Your task to perform on an android device: turn off data saver in the chrome app Image 0: 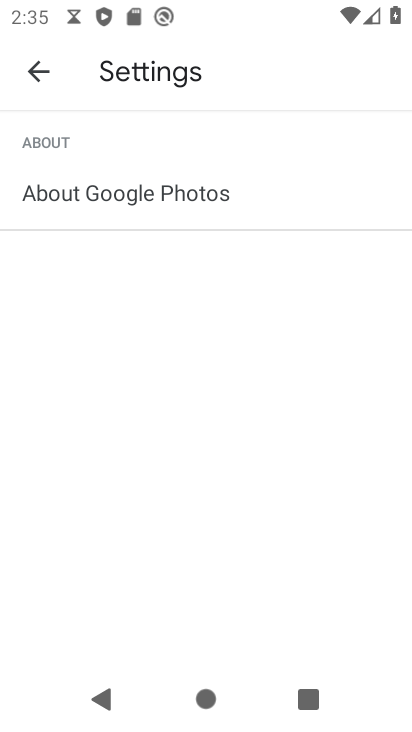
Step 0: press home button
Your task to perform on an android device: turn off data saver in the chrome app Image 1: 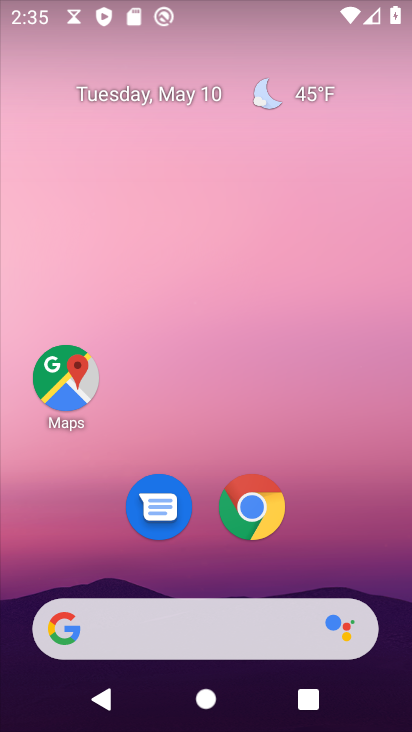
Step 1: drag from (327, 535) to (183, 122)
Your task to perform on an android device: turn off data saver in the chrome app Image 2: 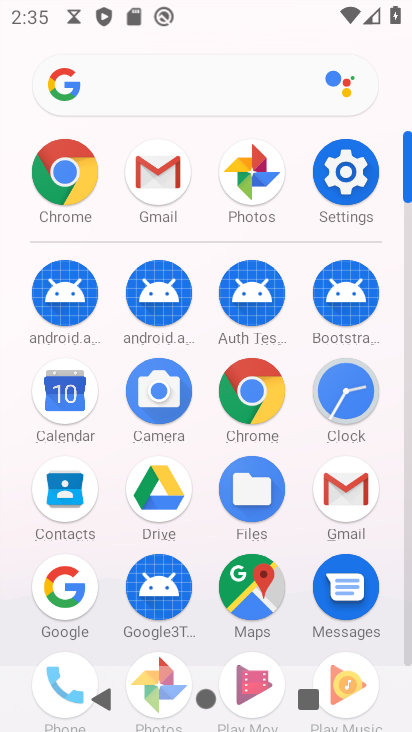
Step 2: click (246, 402)
Your task to perform on an android device: turn off data saver in the chrome app Image 3: 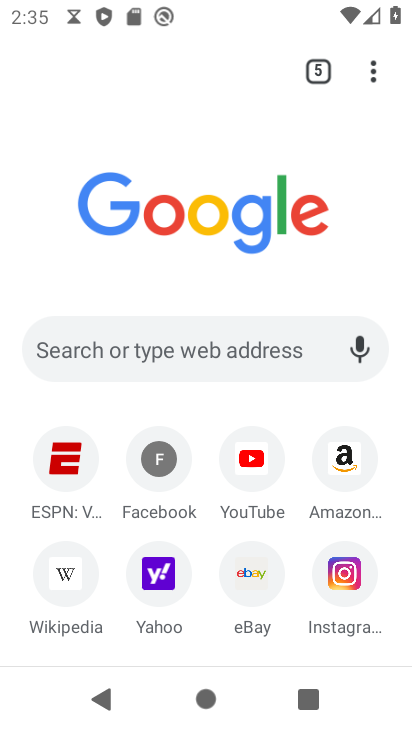
Step 3: drag from (373, 74) to (163, 508)
Your task to perform on an android device: turn off data saver in the chrome app Image 4: 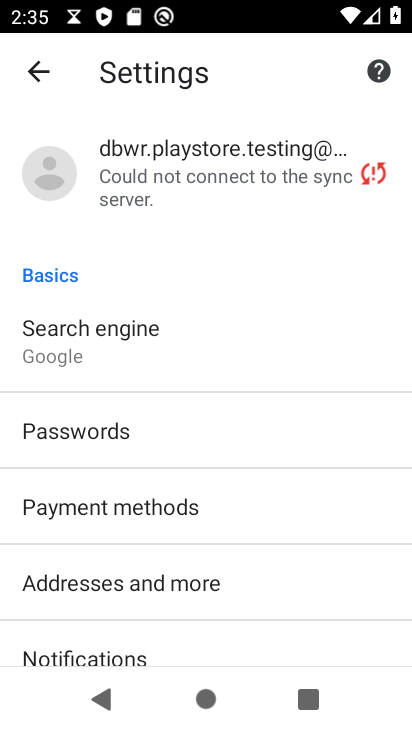
Step 4: drag from (172, 645) to (157, 187)
Your task to perform on an android device: turn off data saver in the chrome app Image 5: 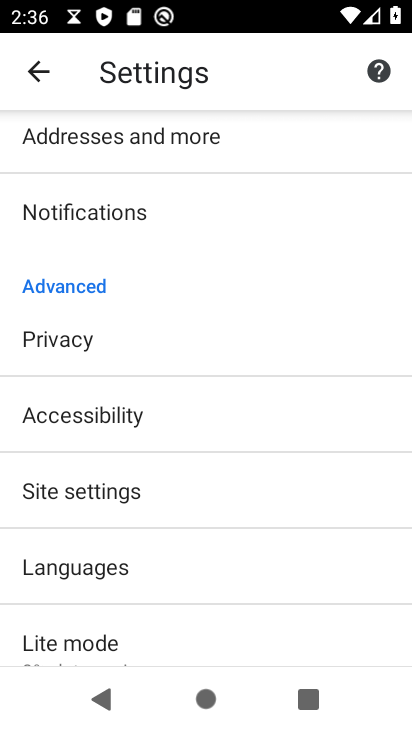
Step 5: click (96, 636)
Your task to perform on an android device: turn off data saver in the chrome app Image 6: 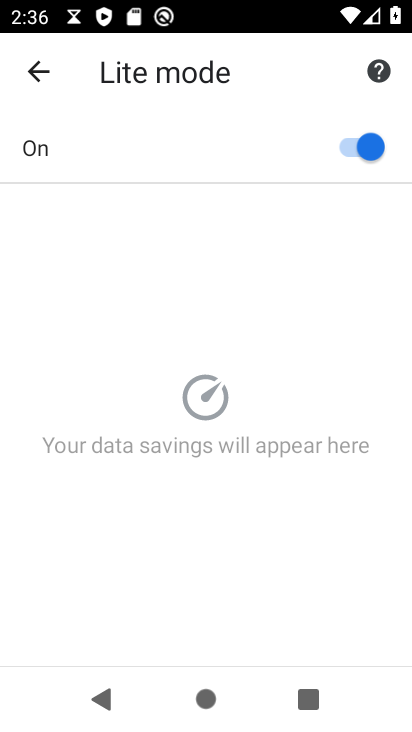
Step 6: click (360, 155)
Your task to perform on an android device: turn off data saver in the chrome app Image 7: 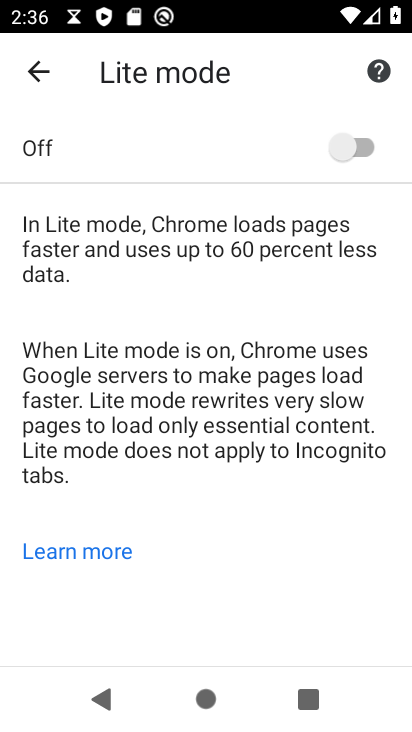
Step 7: task complete